Your task to perform on an android device: What's the weather? Image 0: 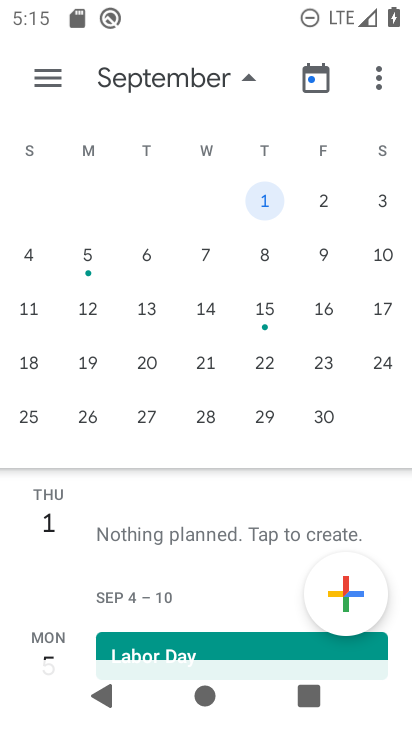
Step 0: press back button
Your task to perform on an android device: What's the weather? Image 1: 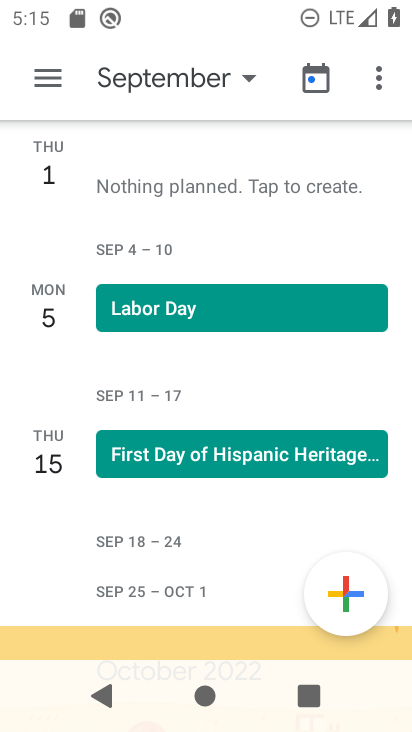
Step 1: press back button
Your task to perform on an android device: What's the weather? Image 2: 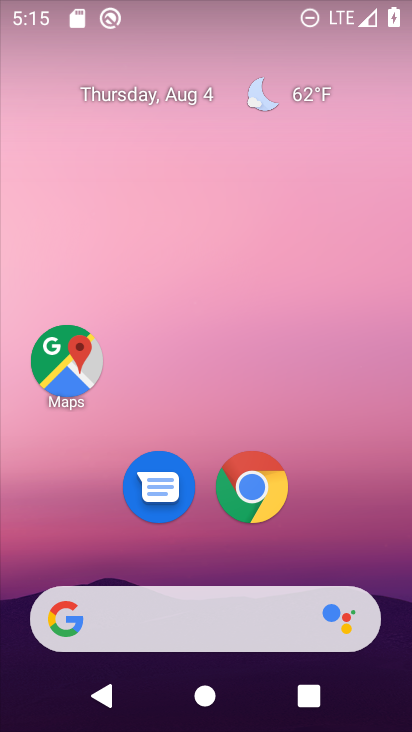
Step 2: click (191, 615)
Your task to perform on an android device: What's the weather? Image 3: 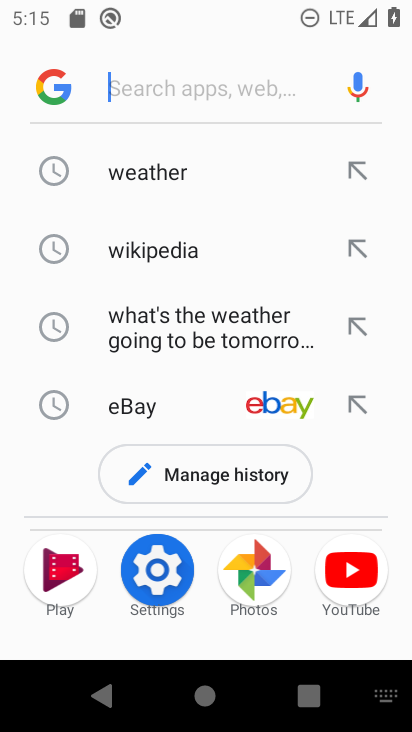
Step 3: click (124, 173)
Your task to perform on an android device: What's the weather? Image 4: 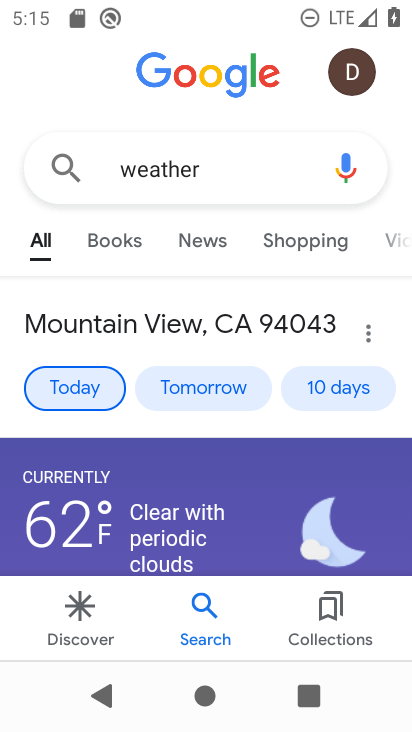
Step 4: task complete